Your task to perform on an android device: Is it going to rain today? Image 0: 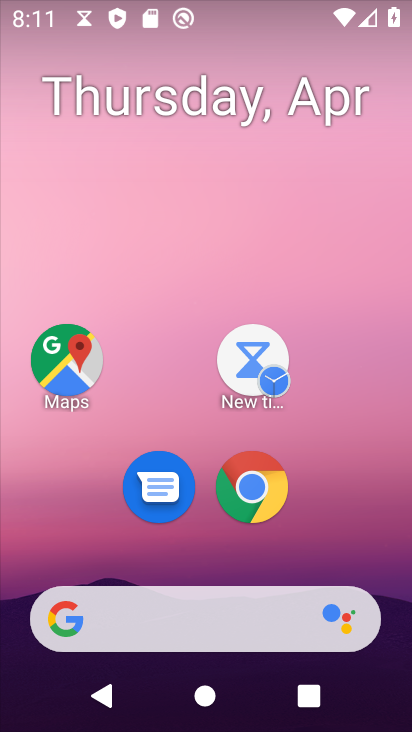
Step 0: click (257, 480)
Your task to perform on an android device: Is it going to rain today? Image 1: 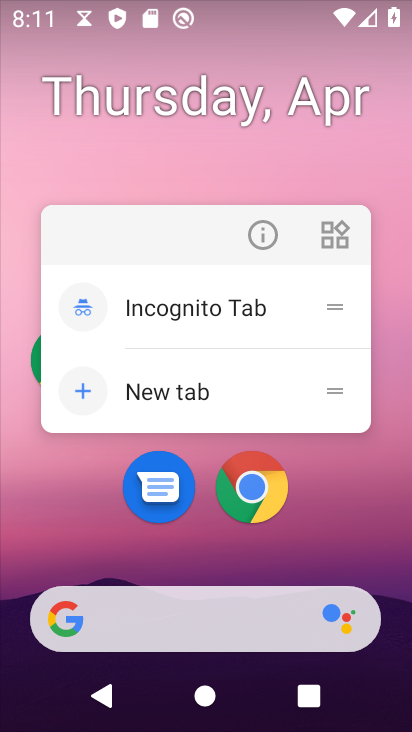
Step 1: click (257, 480)
Your task to perform on an android device: Is it going to rain today? Image 2: 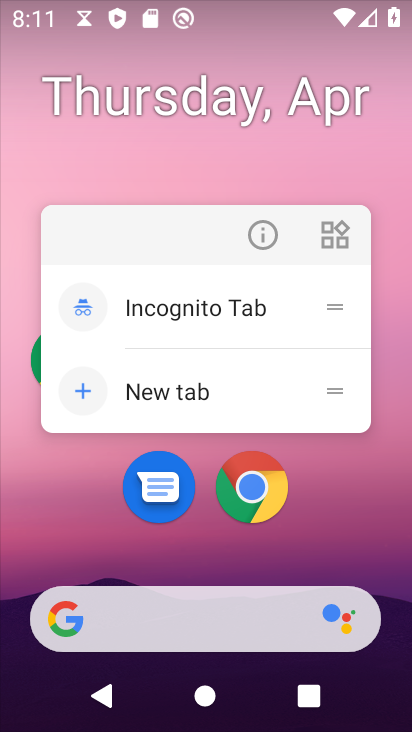
Step 2: click (268, 497)
Your task to perform on an android device: Is it going to rain today? Image 3: 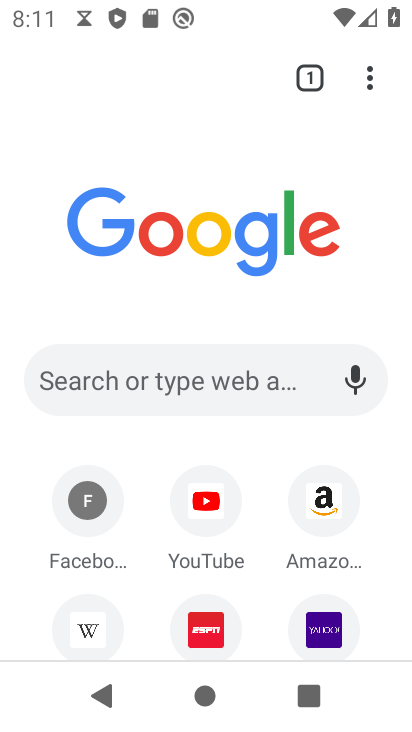
Step 3: click (137, 380)
Your task to perform on an android device: Is it going to rain today? Image 4: 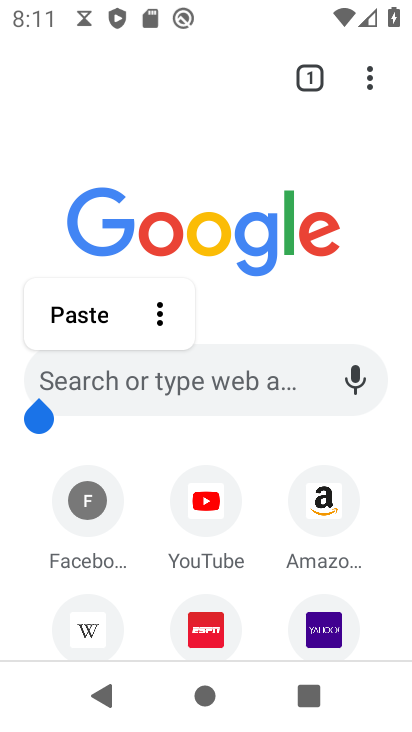
Step 4: click (147, 383)
Your task to perform on an android device: Is it going to rain today? Image 5: 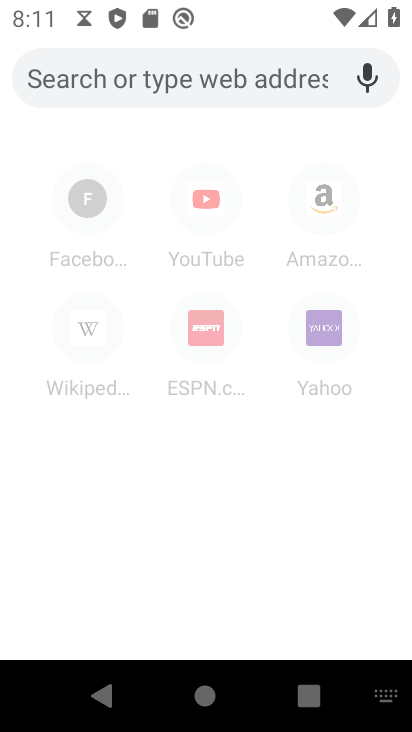
Step 5: type "is it going to rain today"
Your task to perform on an android device: Is it going to rain today? Image 6: 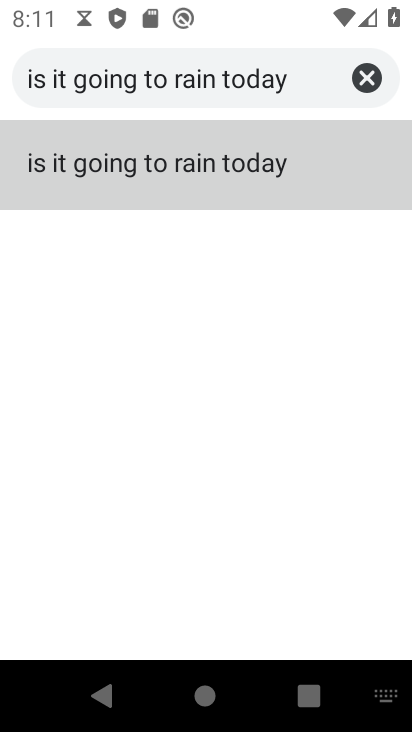
Step 6: click (132, 181)
Your task to perform on an android device: Is it going to rain today? Image 7: 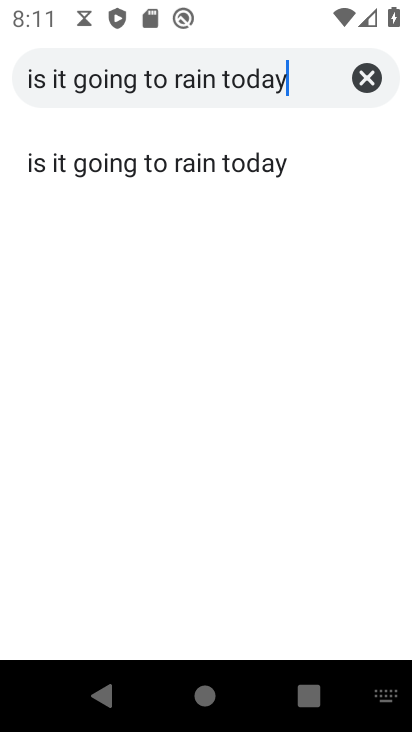
Step 7: click (141, 171)
Your task to perform on an android device: Is it going to rain today? Image 8: 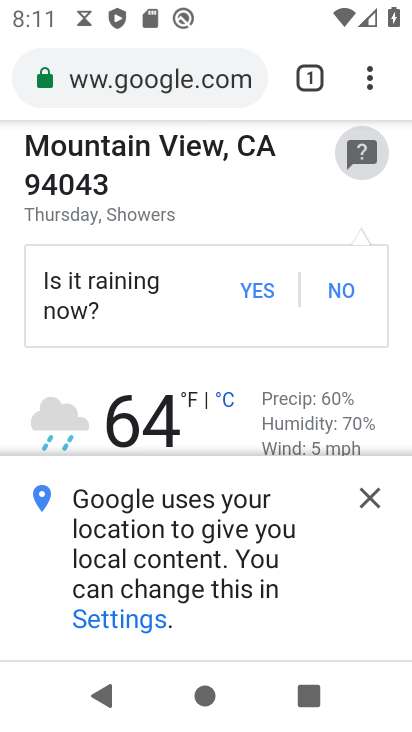
Step 8: task complete